Your task to perform on an android device: make emails show in primary in the gmail app Image 0: 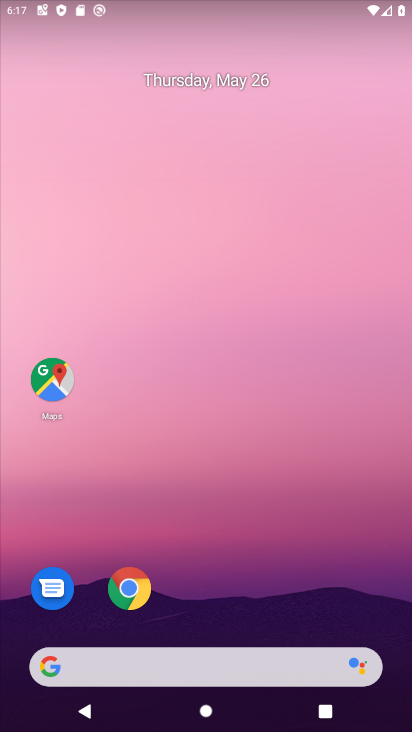
Step 0: drag from (371, 612) to (331, 257)
Your task to perform on an android device: make emails show in primary in the gmail app Image 1: 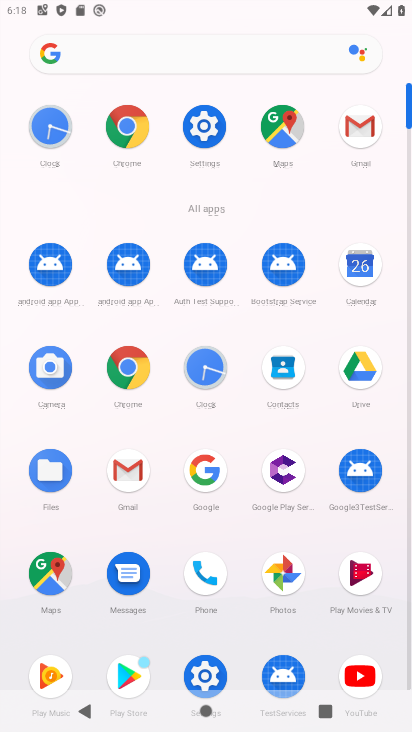
Step 1: click (130, 470)
Your task to perform on an android device: make emails show in primary in the gmail app Image 2: 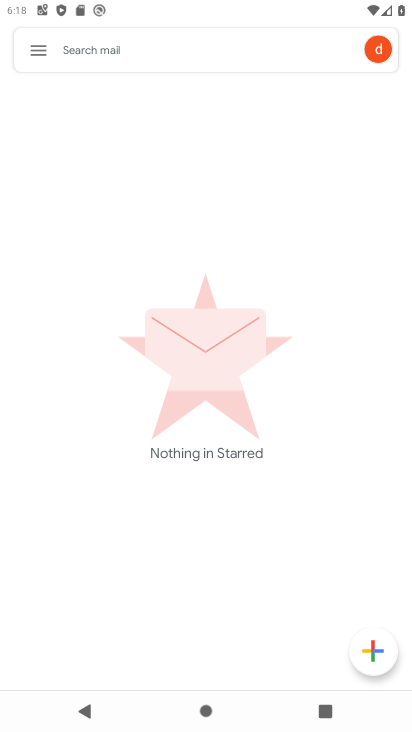
Step 2: task complete